Your task to perform on an android device: Search for hotels in Paris Image 0: 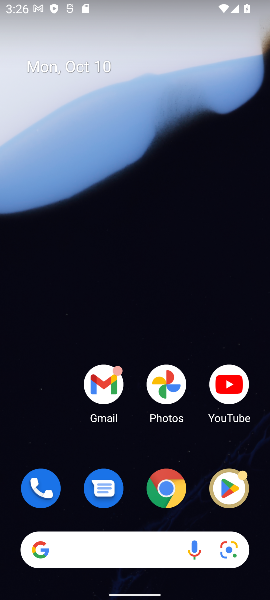
Step 0: click (111, 556)
Your task to perform on an android device: Search for hotels in Paris Image 1: 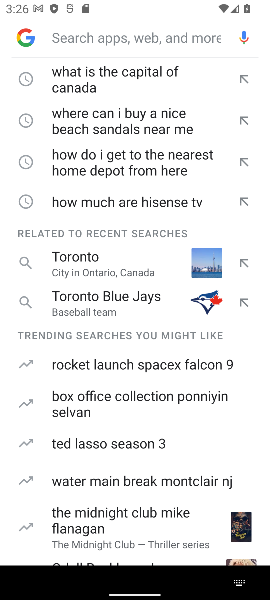
Step 1: click (87, 34)
Your task to perform on an android device: Search for hotels in Paris Image 2: 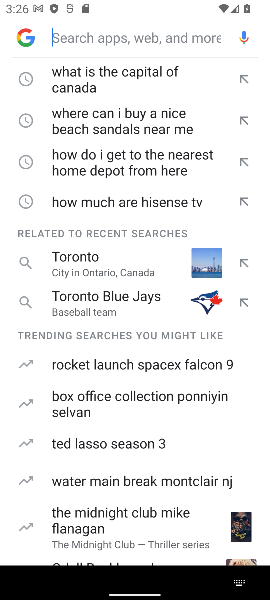
Step 2: click (126, 40)
Your task to perform on an android device: Search for hotels in Paris Image 3: 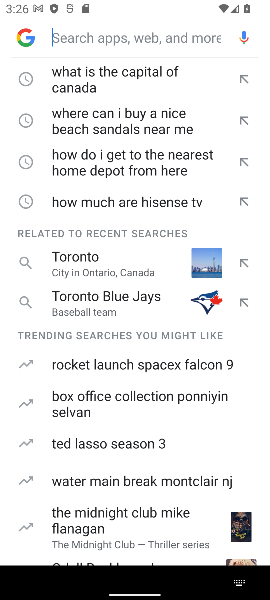
Step 3: type "Search for hotels in Paris"
Your task to perform on an android device: Search for hotels in Paris Image 4: 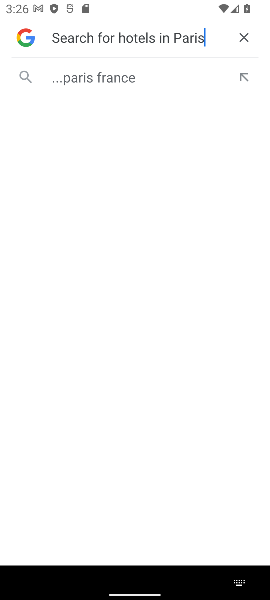
Step 4: click (108, 70)
Your task to perform on an android device: Search for hotels in Paris Image 5: 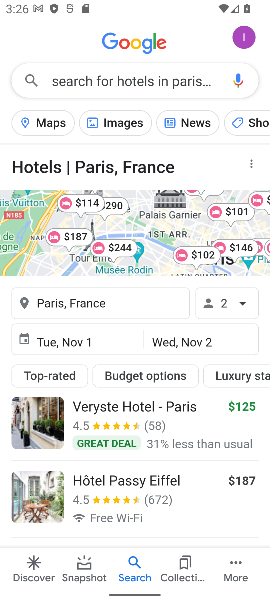
Step 5: task complete